Your task to perform on an android device: open device folders in google photos Image 0: 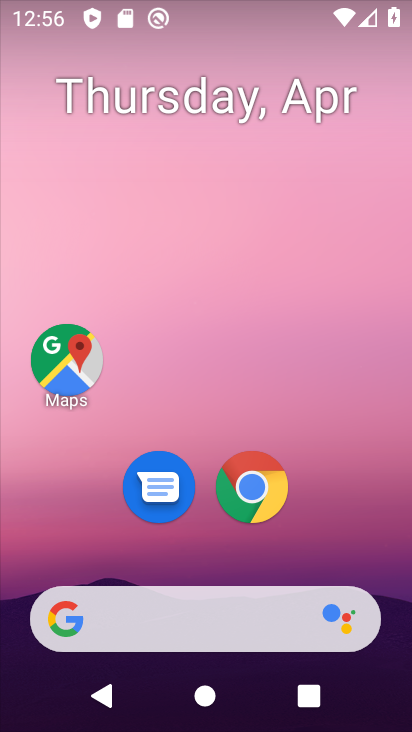
Step 0: drag from (341, 514) to (349, 83)
Your task to perform on an android device: open device folders in google photos Image 1: 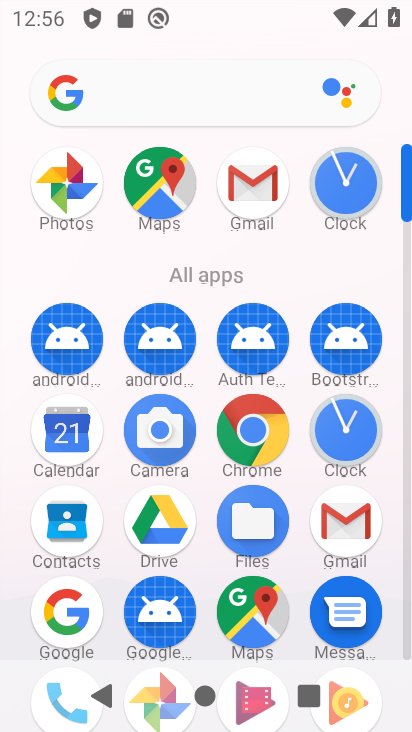
Step 1: click (78, 188)
Your task to perform on an android device: open device folders in google photos Image 2: 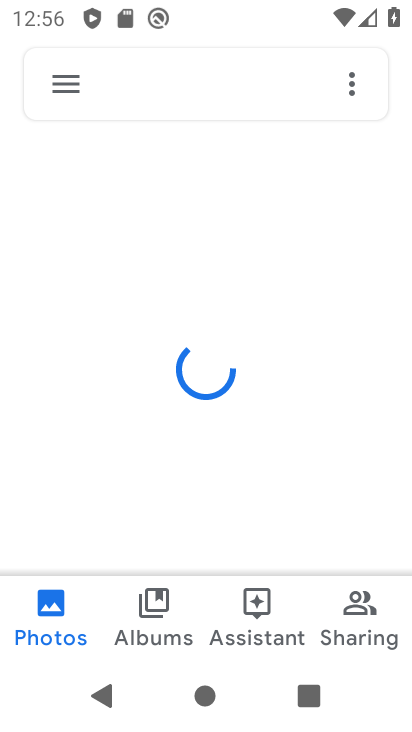
Step 2: click (66, 90)
Your task to perform on an android device: open device folders in google photos Image 3: 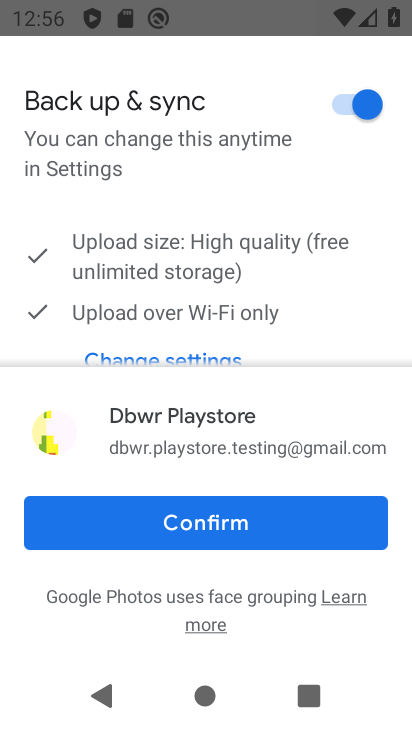
Step 3: click (240, 528)
Your task to perform on an android device: open device folders in google photos Image 4: 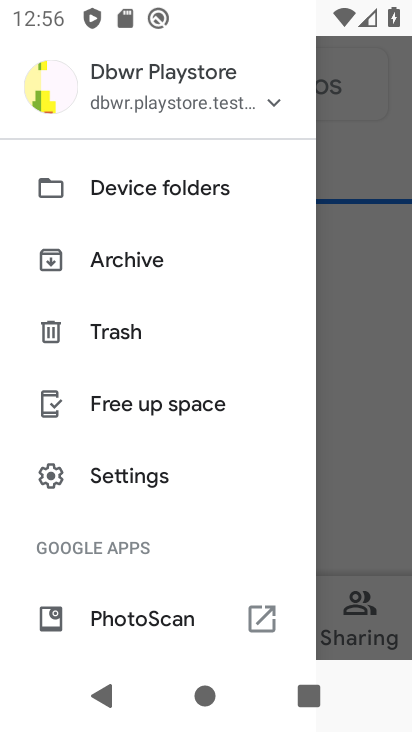
Step 4: click (119, 184)
Your task to perform on an android device: open device folders in google photos Image 5: 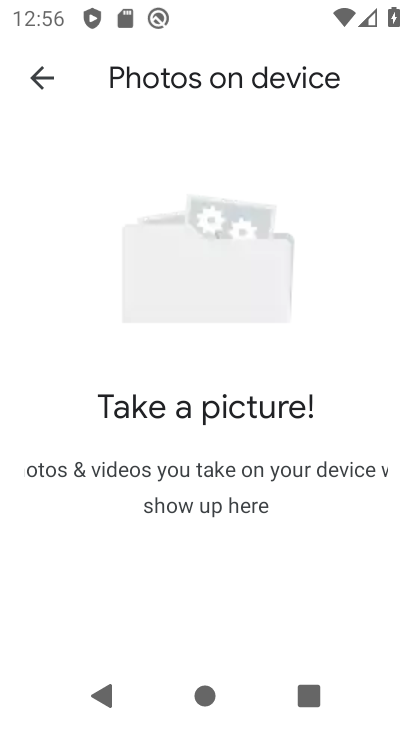
Step 5: task complete